Your task to perform on an android device: delete a single message in the gmail app Image 0: 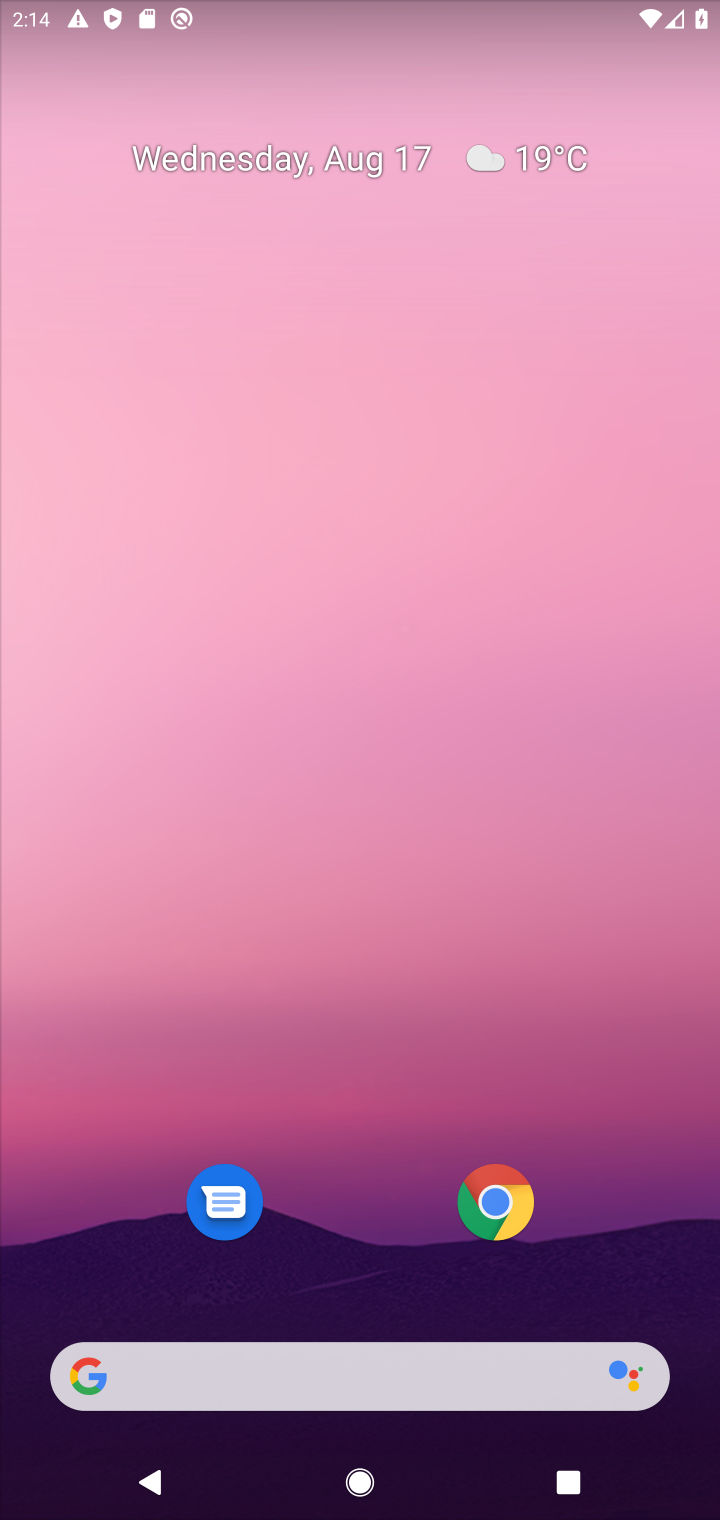
Step 0: drag from (395, 1216) to (558, 0)
Your task to perform on an android device: delete a single message in the gmail app Image 1: 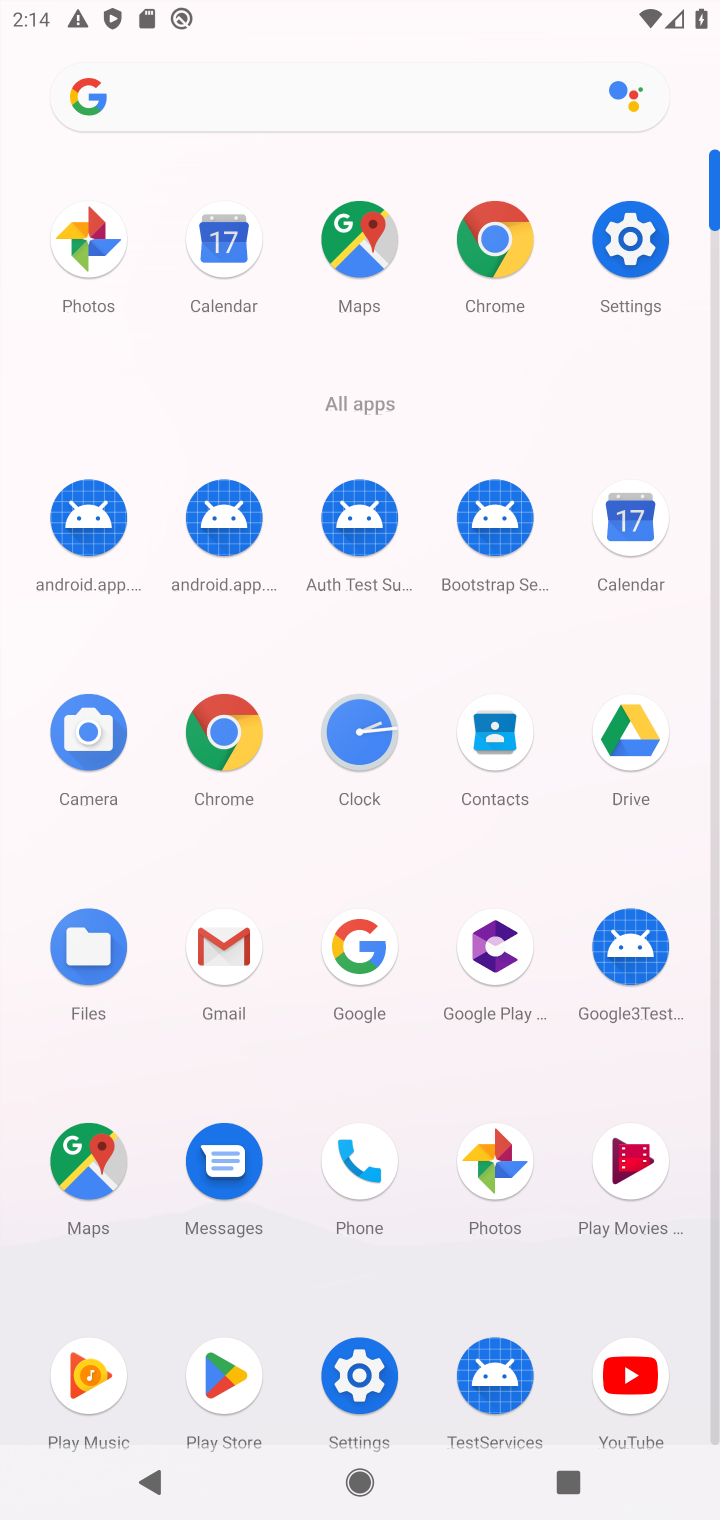
Step 1: click (218, 953)
Your task to perform on an android device: delete a single message in the gmail app Image 2: 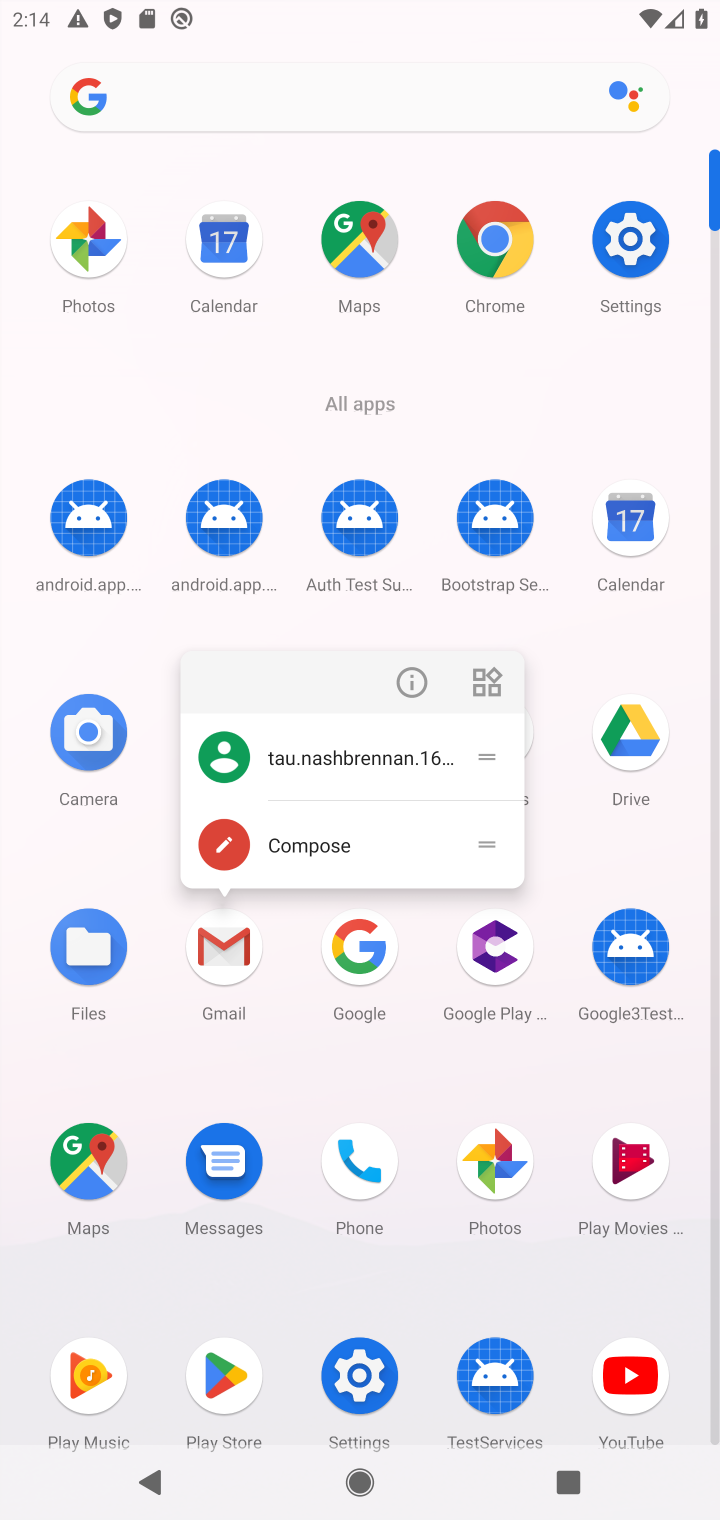
Step 2: click (209, 957)
Your task to perform on an android device: delete a single message in the gmail app Image 3: 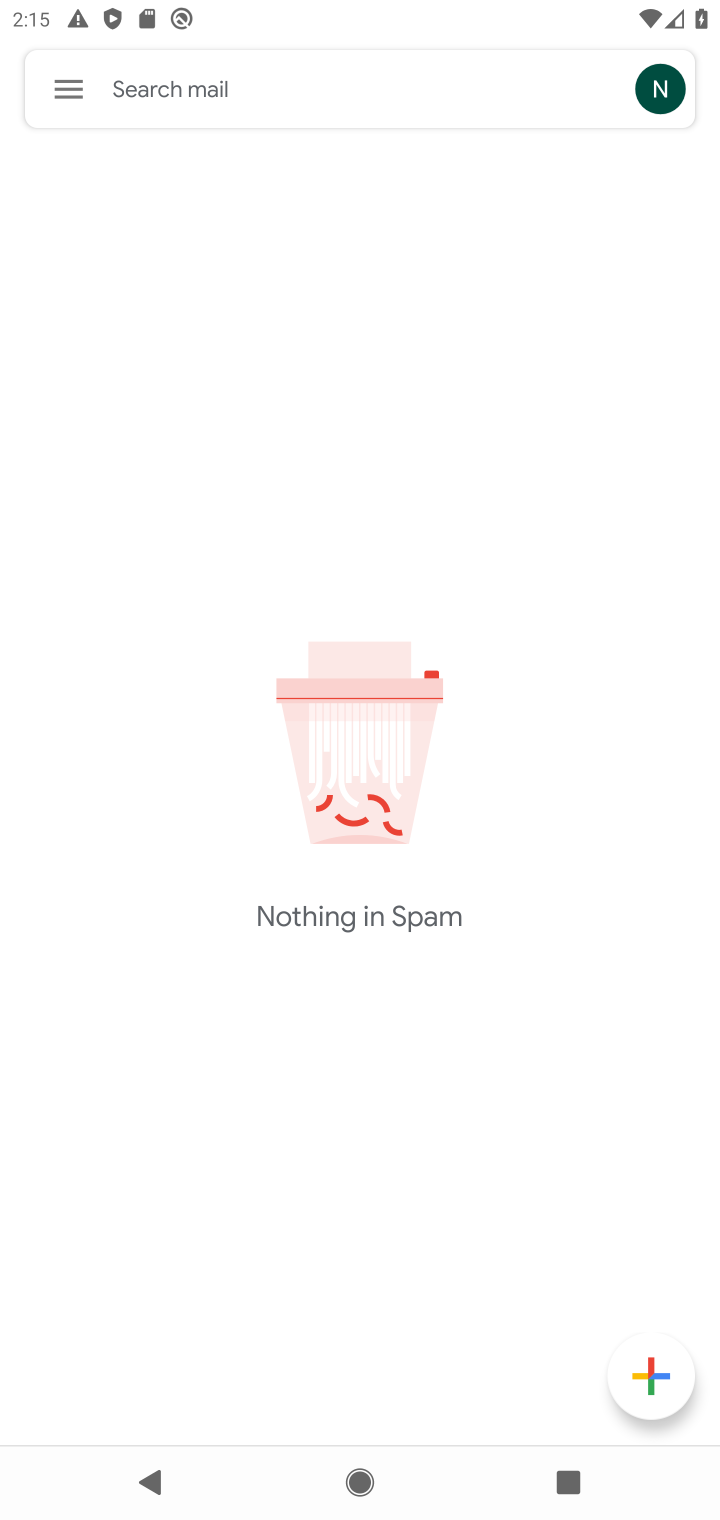
Step 3: click (67, 80)
Your task to perform on an android device: delete a single message in the gmail app Image 4: 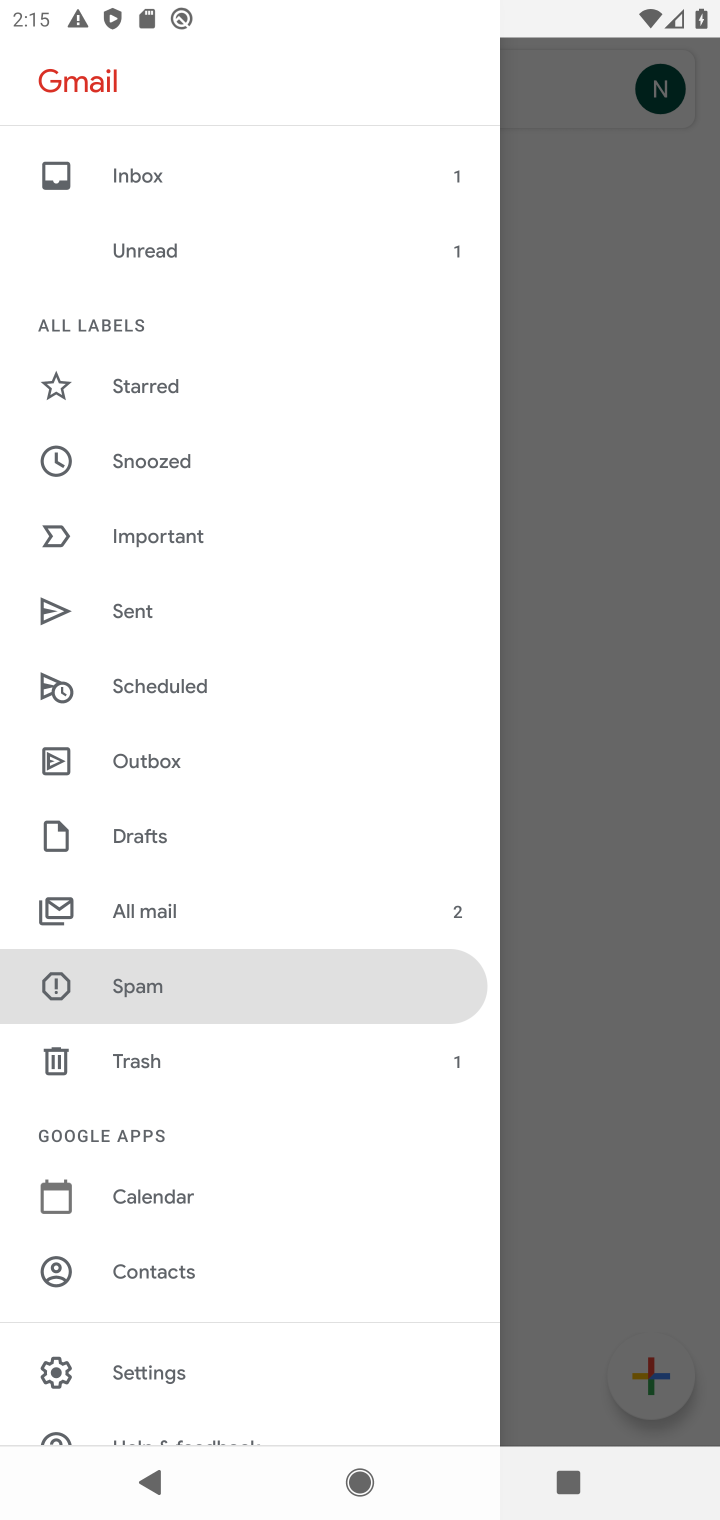
Step 4: click (197, 176)
Your task to perform on an android device: delete a single message in the gmail app Image 5: 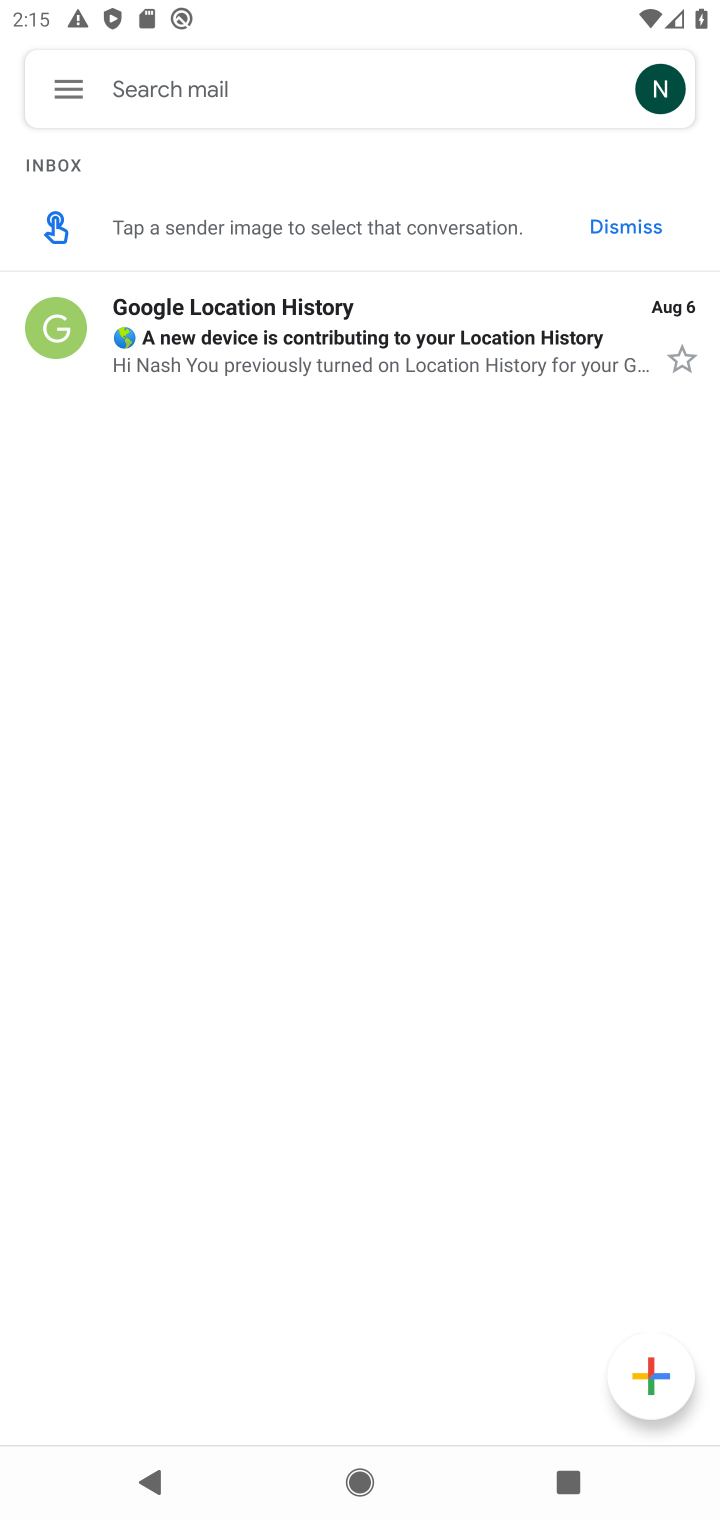
Step 5: click (73, 327)
Your task to perform on an android device: delete a single message in the gmail app Image 6: 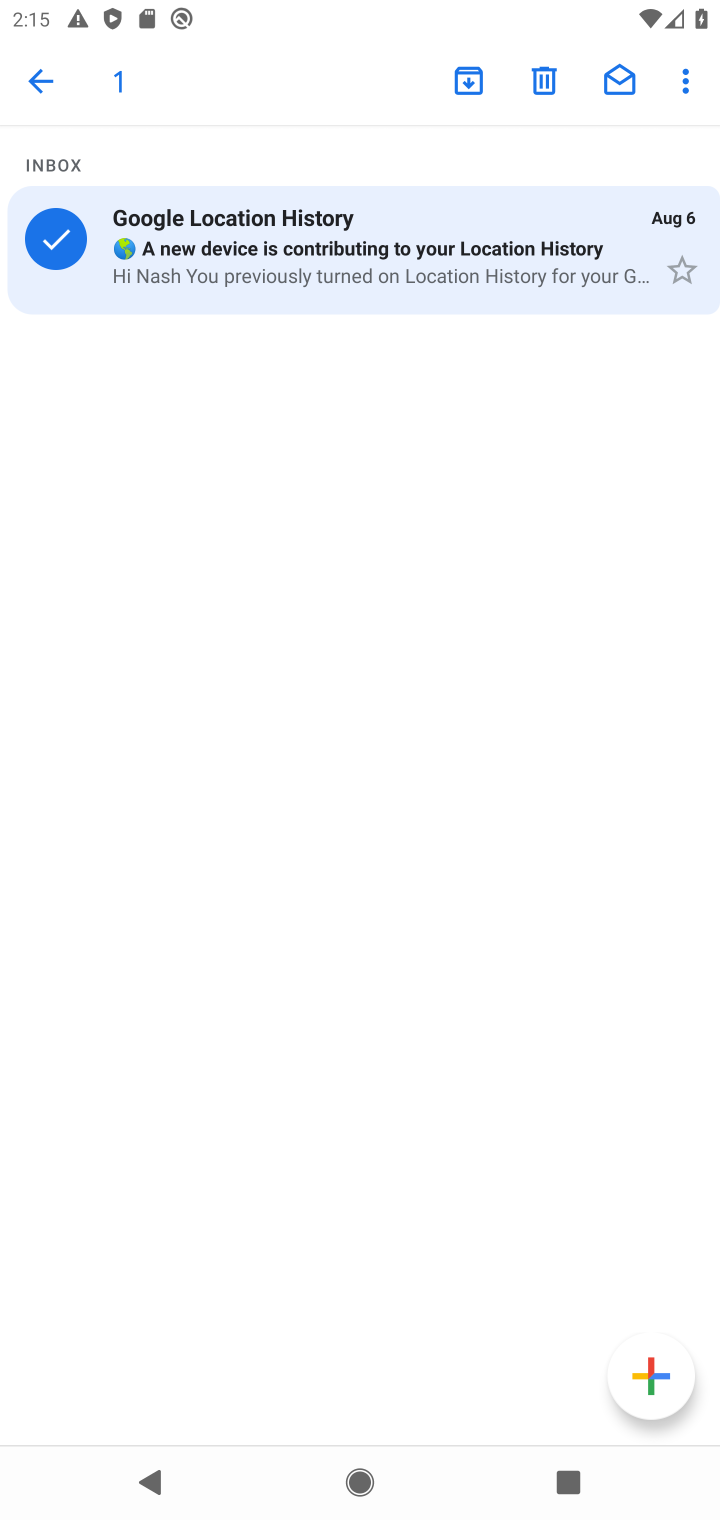
Step 6: click (541, 86)
Your task to perform on an android device: delete a single message in the gmail app Image 7: 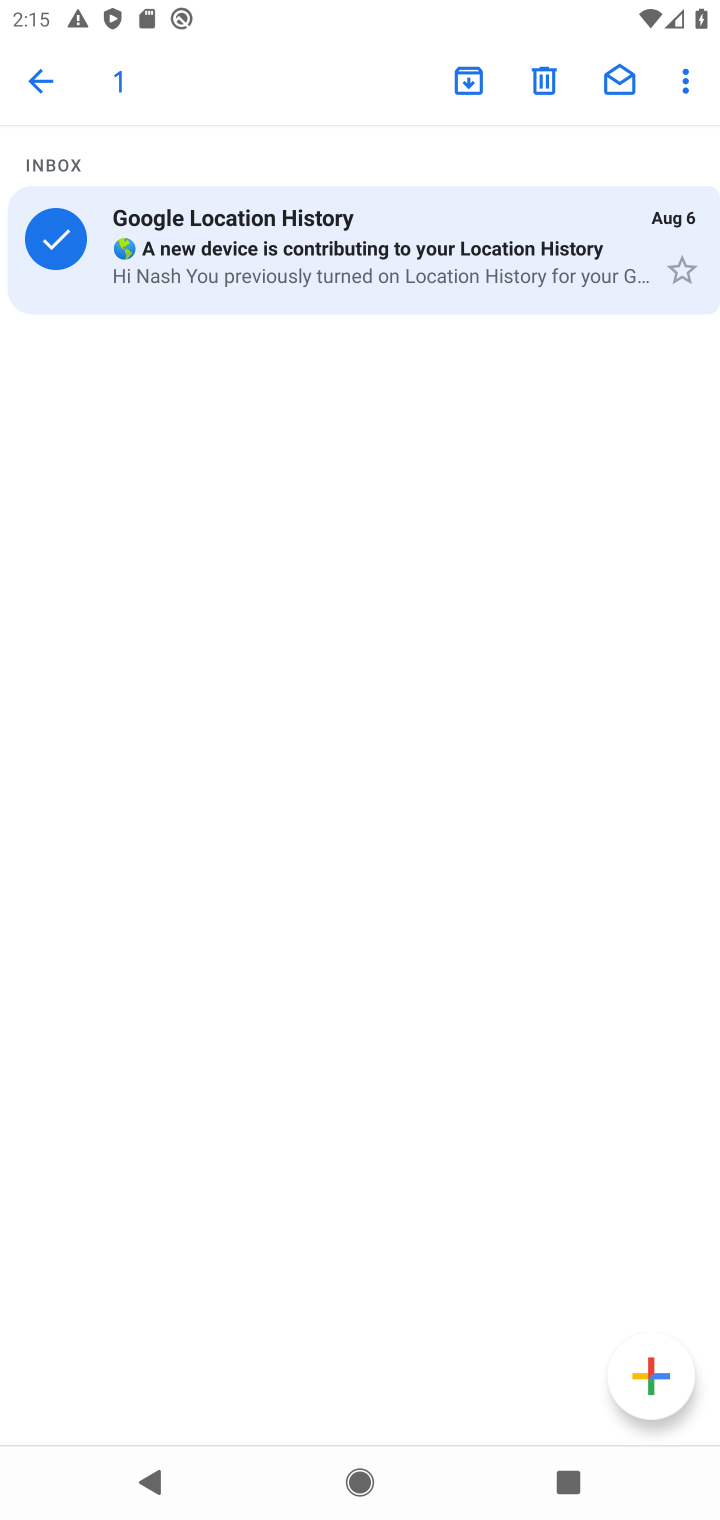
Step 7: click (545, 91)
Your task to perform on an android device: delete a single message in the gmail app Image 8: 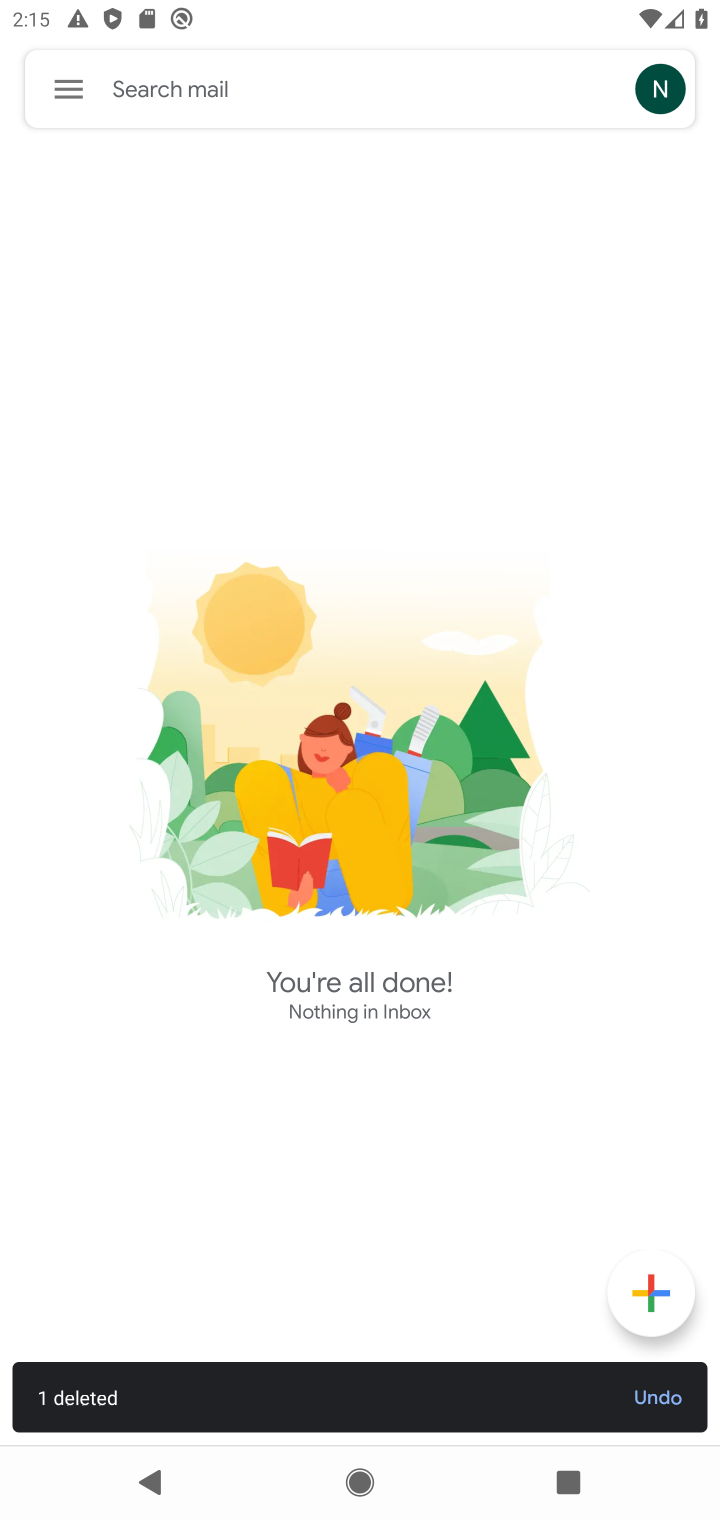
Step 8: task complete